Your task to perform on an android device: Open Google Chrome and open the bookmarks view Image 0: 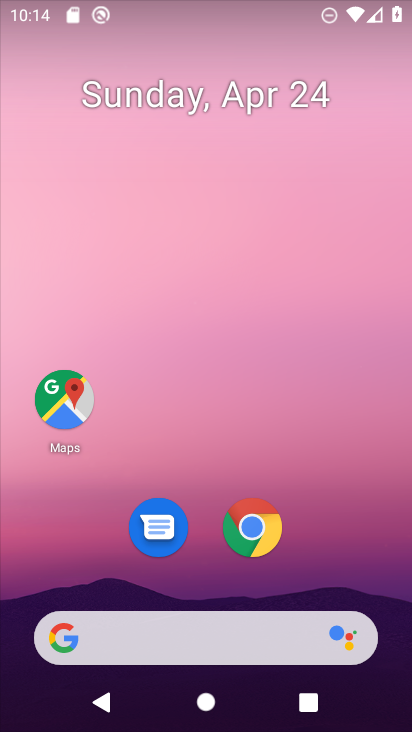
Step 0: drag from (395, 611) to (280, 129)
Your task to perform on an android device: Open Google Chrome and open the bookmarks view Image 1: 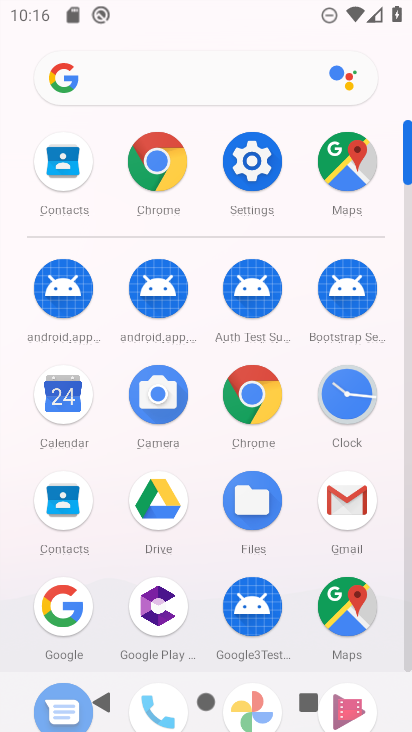
Step 1: click (254, 391)
Your task to perform on an android device: Open Google Chrome and open the bookmarks view Image 2: 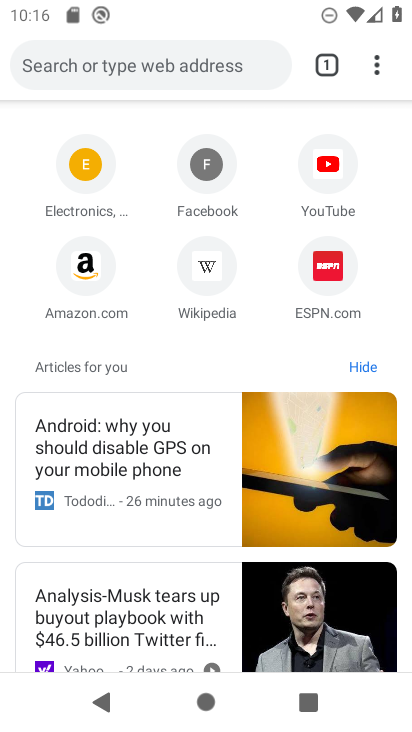
Step 2: click (377, 62)
Your task to perform on an android device: Open Google Chrome and open the bookmarks view Image 3: 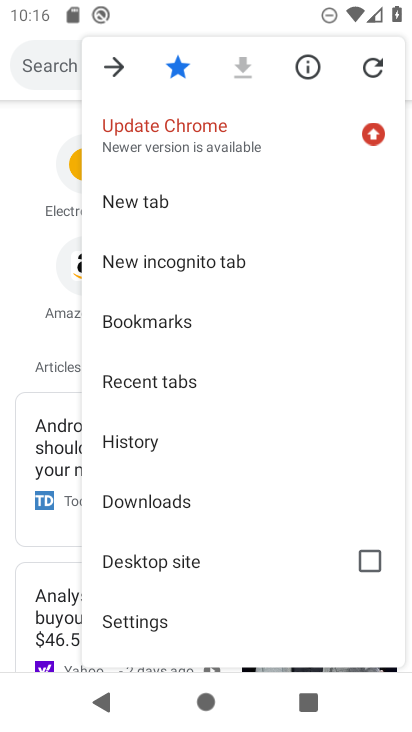
Step 3: click (205, 324)
Your task to perform on an android device: Open Google Chrome and open the bookmarks view Image 4: 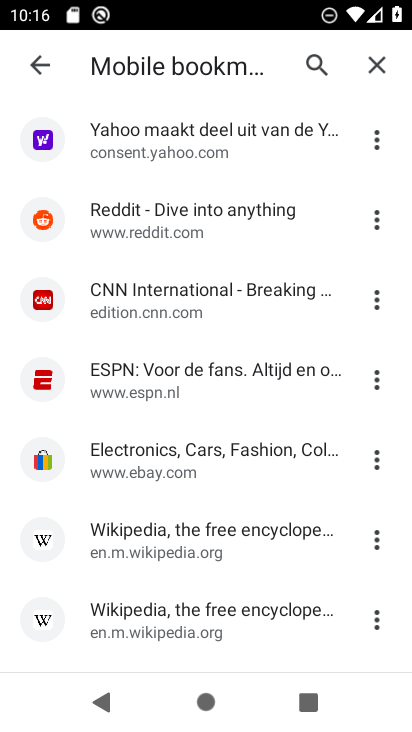
Step 4: task complete